Your task to perform on an android device: find snoozed emails in the gmail app Image 0: 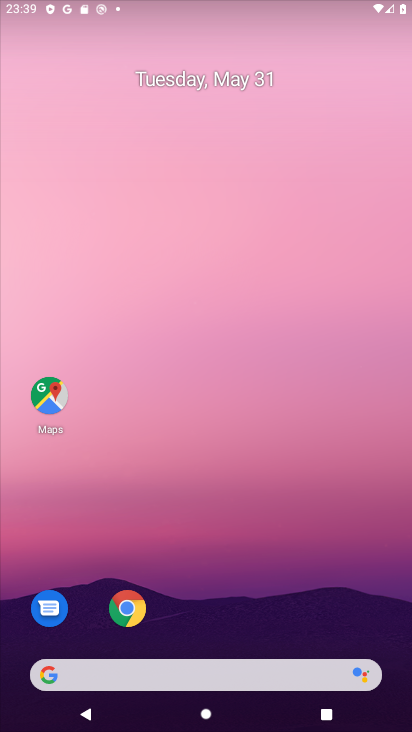
Step 0: press home button
Your task to perform on an android device: find snoozed emails in the gmail app Image 1: 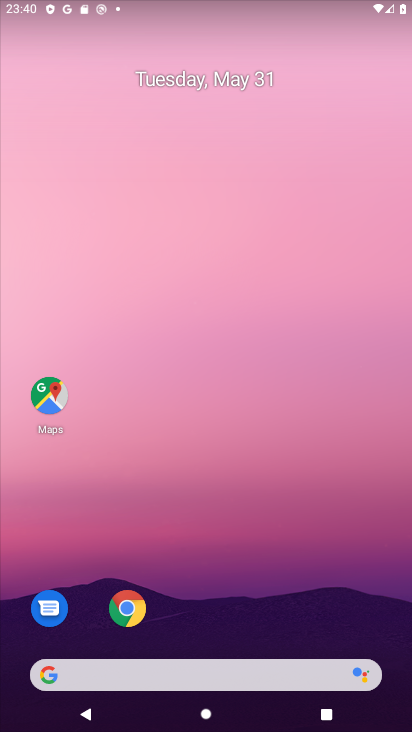
Step 1: drag from (192, 617) to (264, 24)
Your task to perform on an android device: find snoozed emails in the gmail app Image 2: 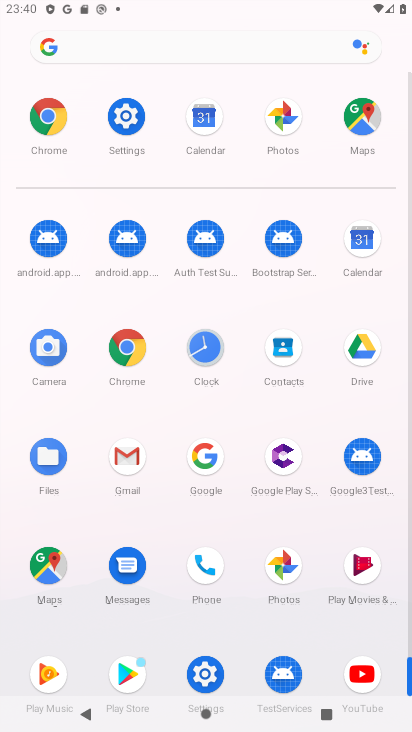
Step 2: click (138, 444)
Your task to perform on an android device: find snoozed emails in the gmail app Image 3: 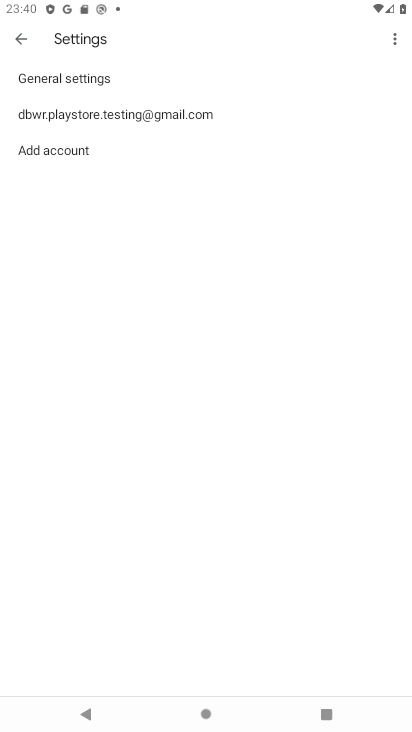
Step 3: click (14, 36)
Your task to perform on an android device: find snoozed emails in the gmail app Image 4: 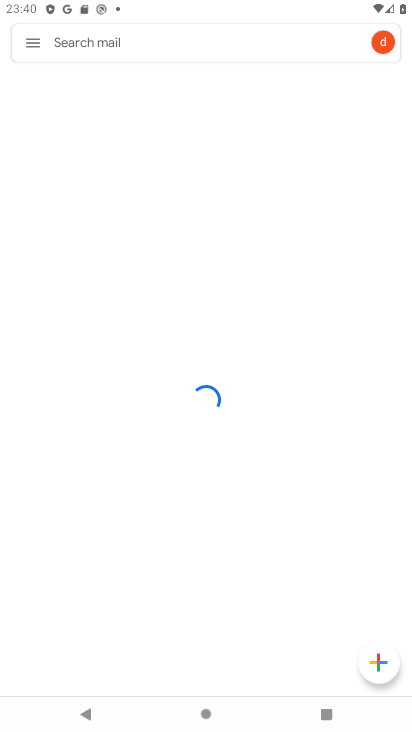
Step 4: click (28, 40)
Your task to perform on an android device: find snoozed emails in the gmail app Image 5: 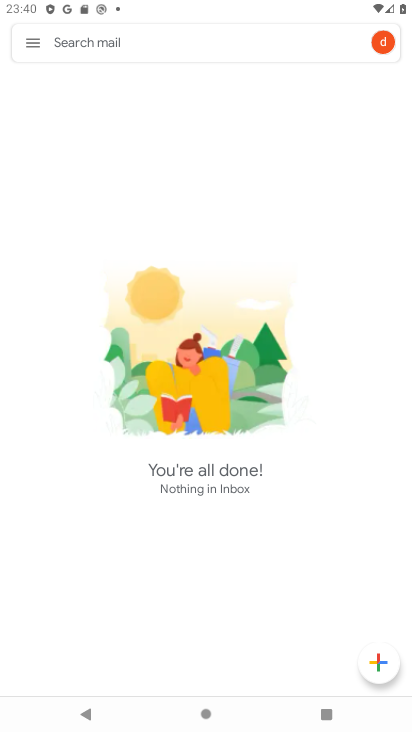
Step 5: click (37, 40)
Your task to perform on an android device: find snoozed emails in the gmail app Image 6: 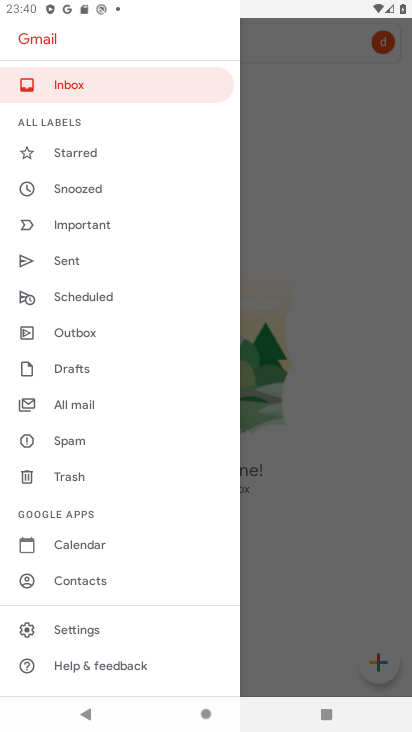
Step 6: click (82, 187)
Your task to perform on an android device: find snoozed emails in the gmail app Image 7: 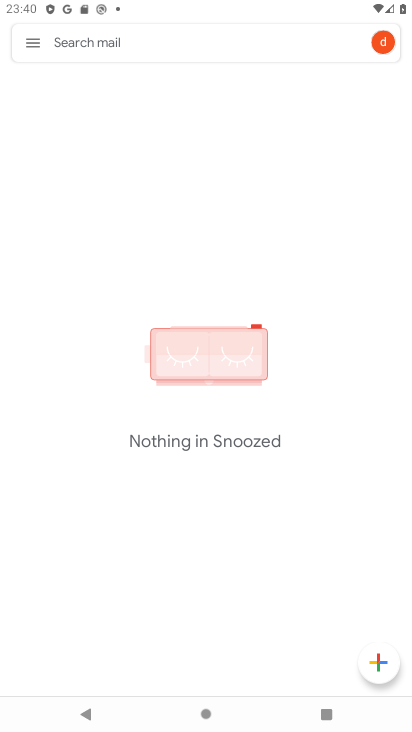
Step 7: task complete